Your task to perform on an android device: Search for logitech g903 on bestbuy, select the first entry, add it to the cart, then select checkout. Image 0: 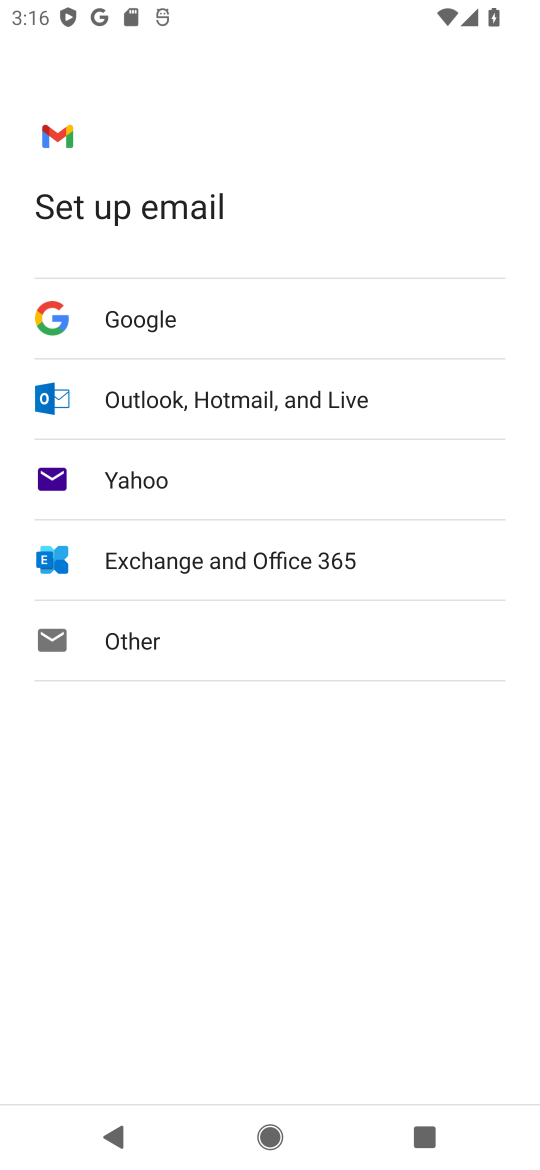
Step 0: press home button
Your task to perform on an android device: Search for logitech g903 on bestbuy, select the first entry, add it to the cart, then select checkout. Image 1: 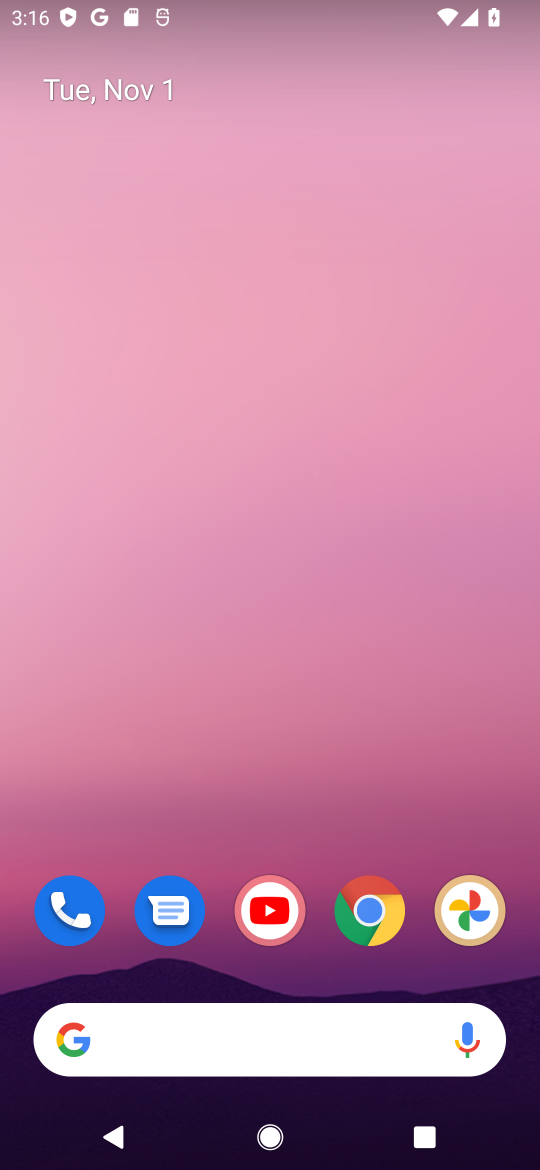
Step 1: drag from (270, 963) to (274, 228)
Your task to perform on an android device: Search for logitech g903 on bestbuy, select the first entry, add it to the cart, then select checkout. Image 2: 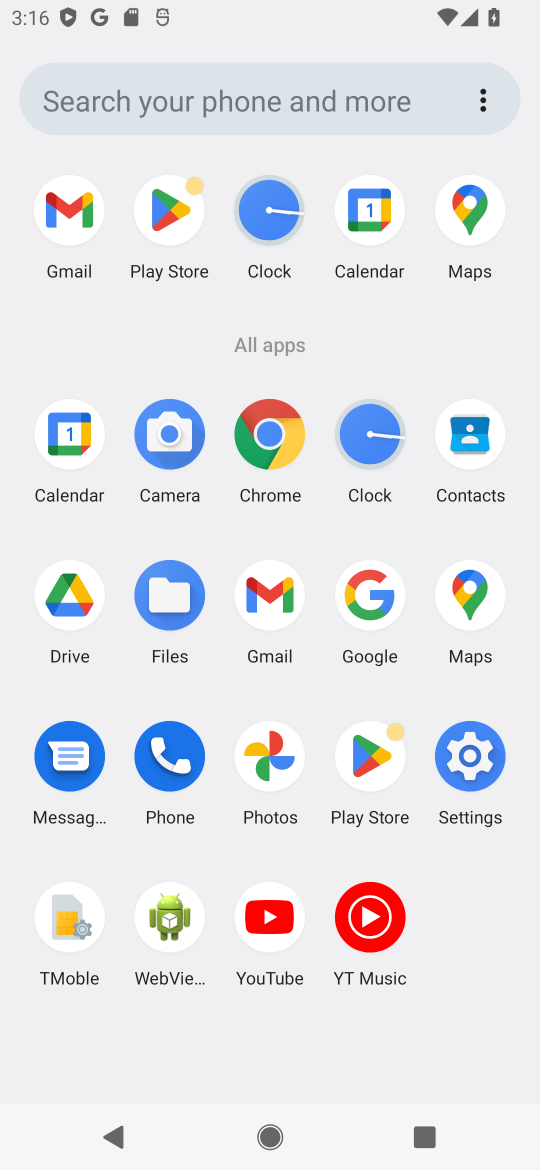
Step 2: click (376, 619)
Your task to perform on an android device: Search for logitech g903 on bestbuy, select the first entry, add it to the cart, then select checkout. Image 3: 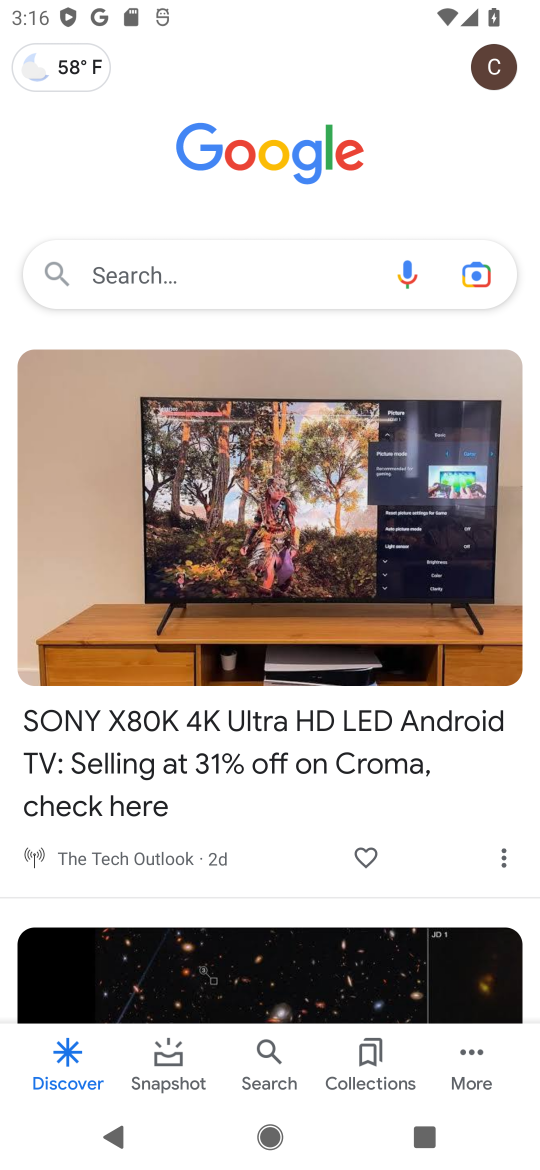
Step 3: click (168, 278)
Your task to perform on an android device: Search for logitech g903 on bestbuy, select the first entry, add it to the cart, then select checkout. Image 4: 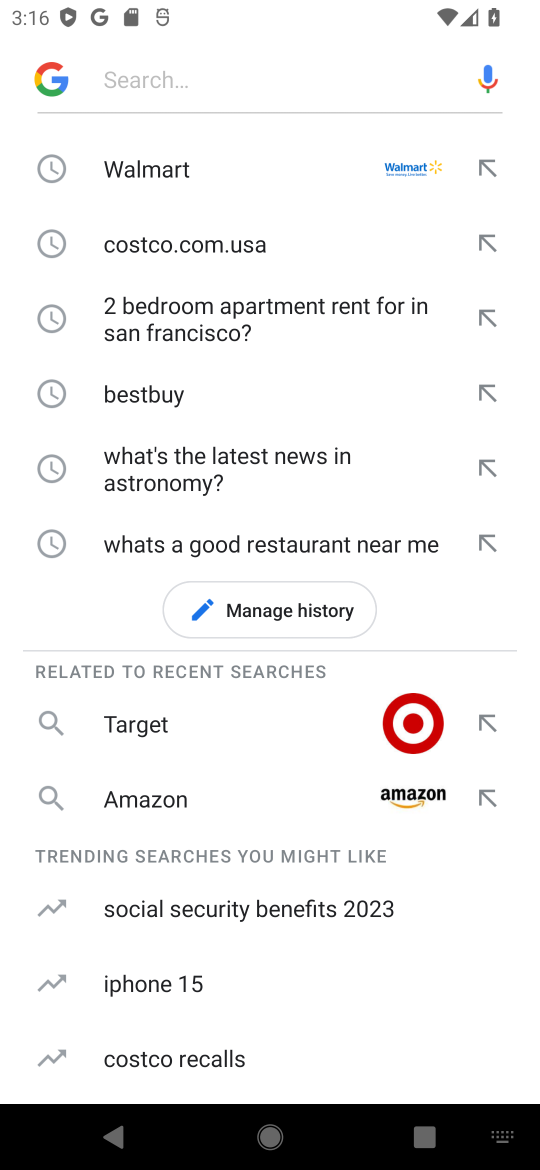
Step 4: type "best buy"
Your task to perform on an android device: Search for logitech g903 on bestbuy, select the first entry, add it to the cart, then select checkout. Image 5: 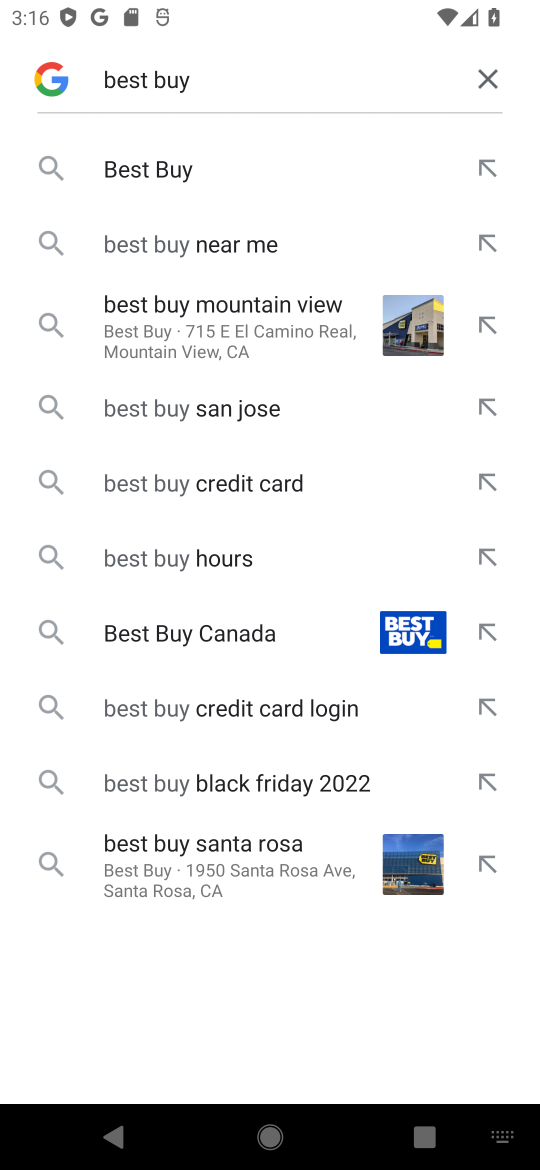
Step 5: click (130, 167)
Your task to perform on an android device: Search for logitech g903 on bestbuy, select the first entry, add it to the cart, then select checkout. Image 6: 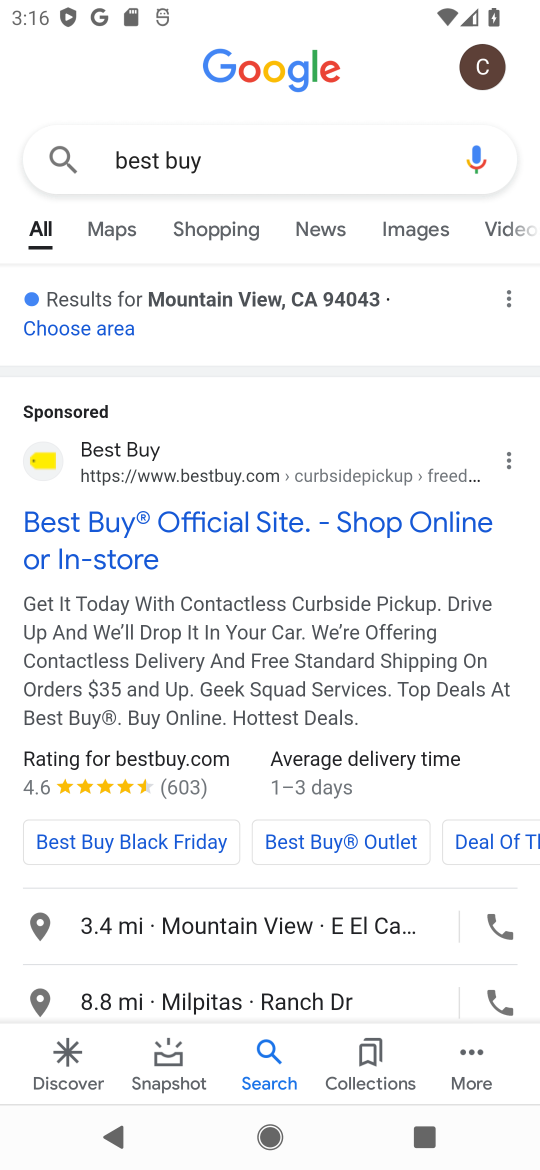
Step 6: click (161, 536)
Your task to perform on an android device: Search for logitech g903 on bestbuy, select the first entry, add it to the cart, then select checkout. Image 7: 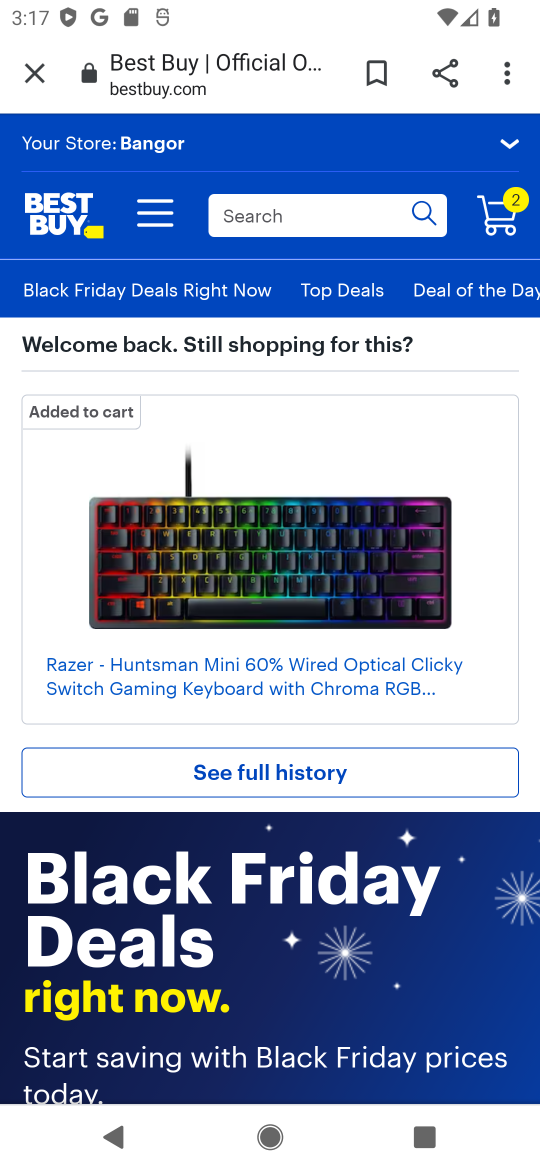
Step 7: click (319, 238)
Your task to perform on an android device: Search for logitech g903 on bestbuy, select the first entry, add it to the cart, then select checkout. Image 8: 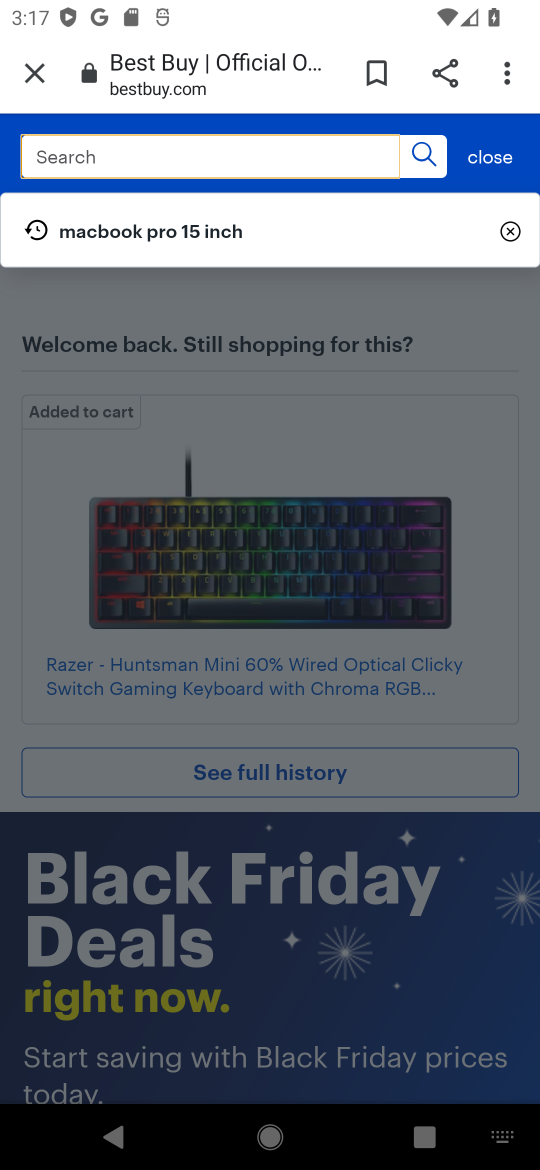
Step 8: type " logitech g903 "
Your task to perform on an android device: Search for logitech g903 on bestbuy, select the first entry, add it to the cart, then select checkout. Image 9: 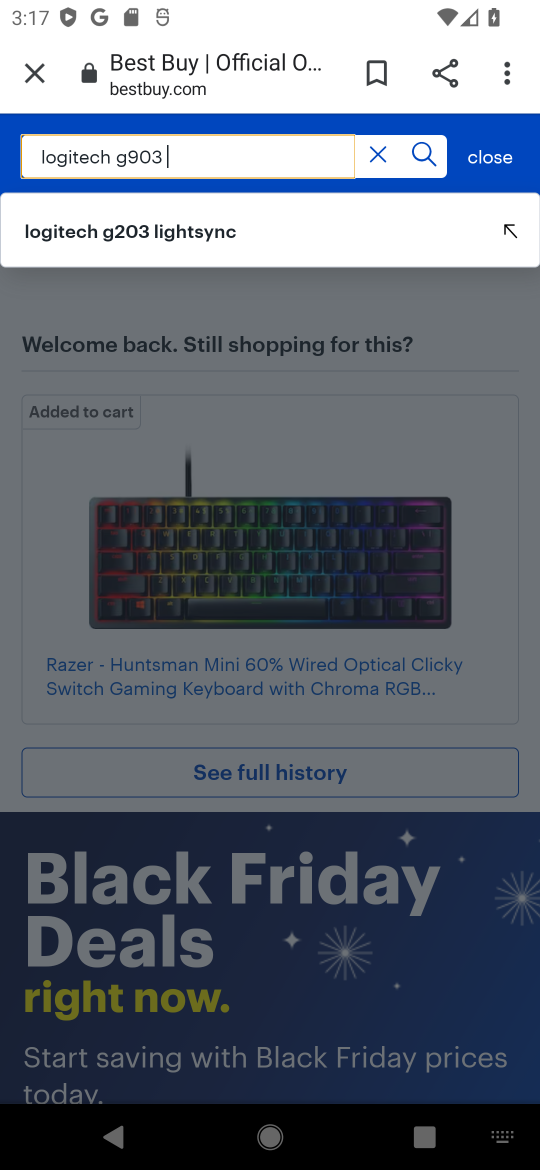
Step 9: click (211, 233)
Your task to perform on an android device: Search for logitech g903 on bestbuy, select the first entry, add it to the cart, then select checkout. Image 10: 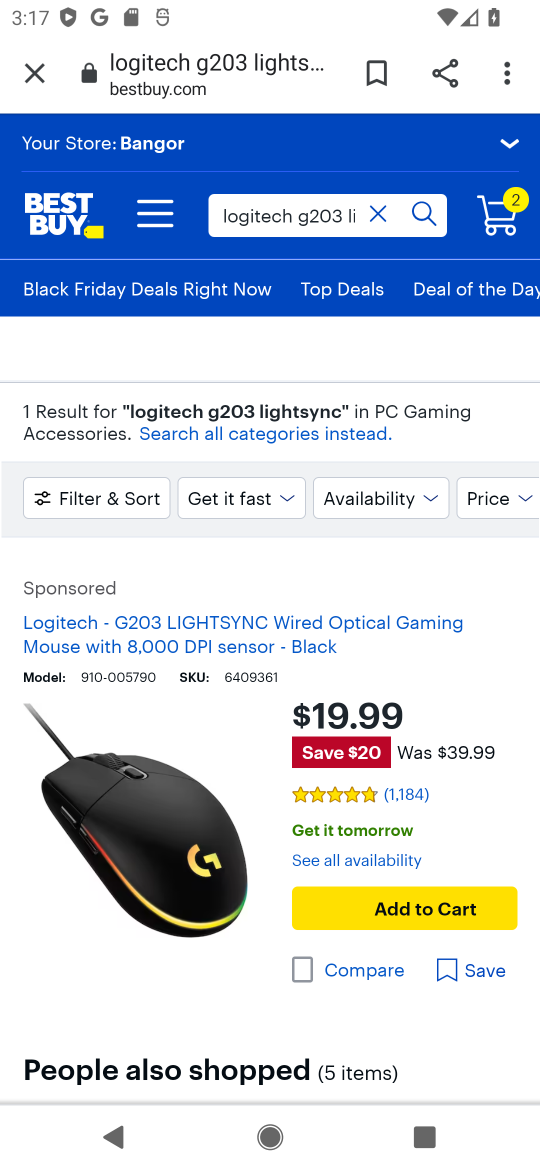
Step 10: click (398, 836)
Your task to perform on an android device: Search for logitech g903 on bestbuy, select the first entry, add it to the cart, then select checkout. Image 11: 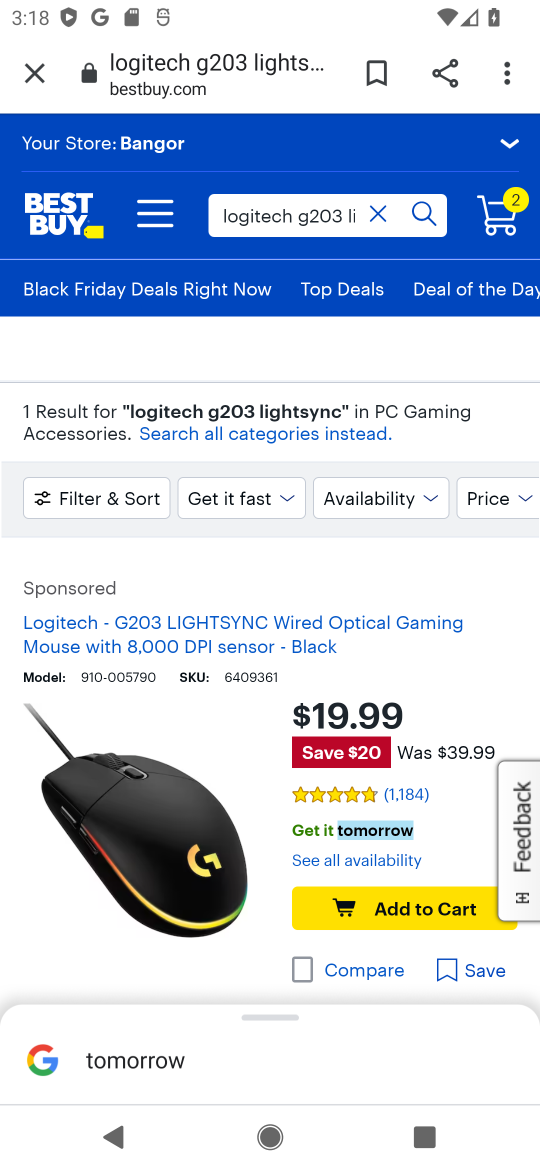
Step 11: click (505, 220)
Your task to perform on an android device: Search for logitech g903 on bestbuy, select the first entry, add it to the cart, then select checkout. Image 12: 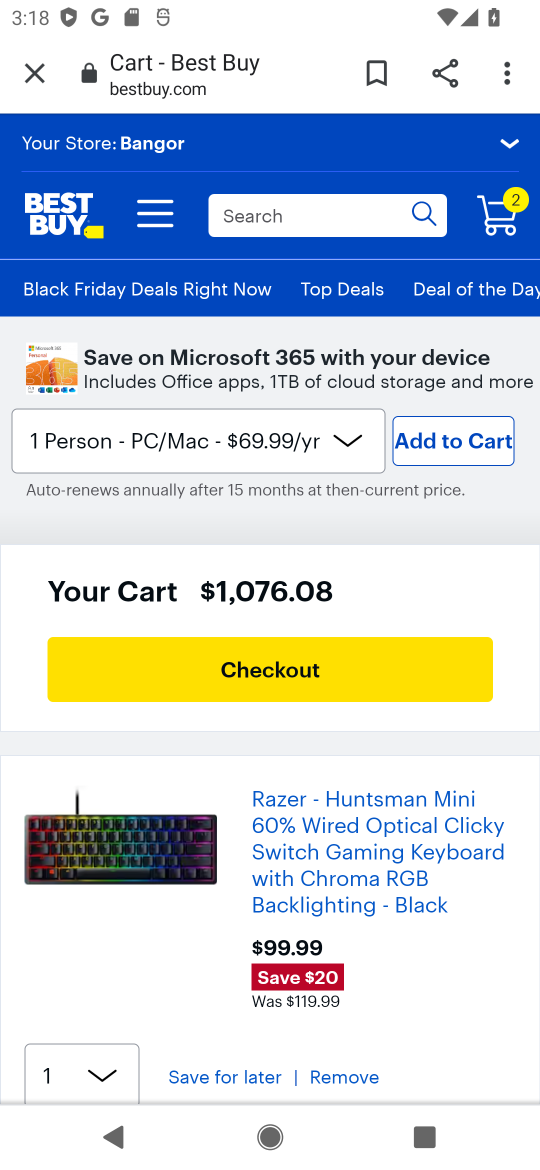
Step 12: click (271, 672)
Your task to perform on an android device: Search for logitech g903 on bestbuy, select the first entry, add it to the cart, then select checkout. Image 13: 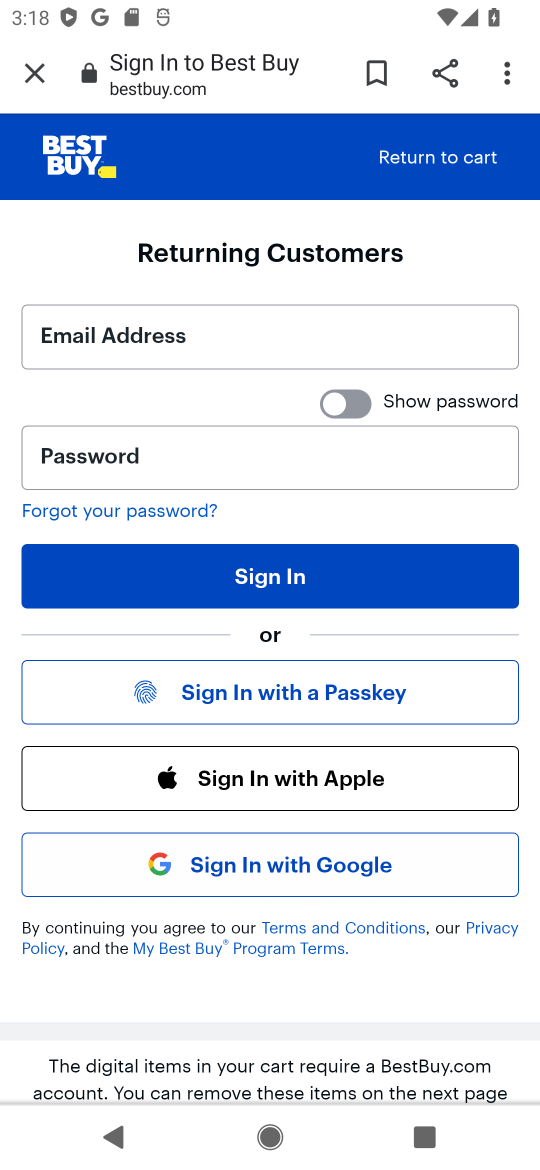
Step 13: task complete